Your task to perform on an android device: turn pop-ups on in chrome Image 0: 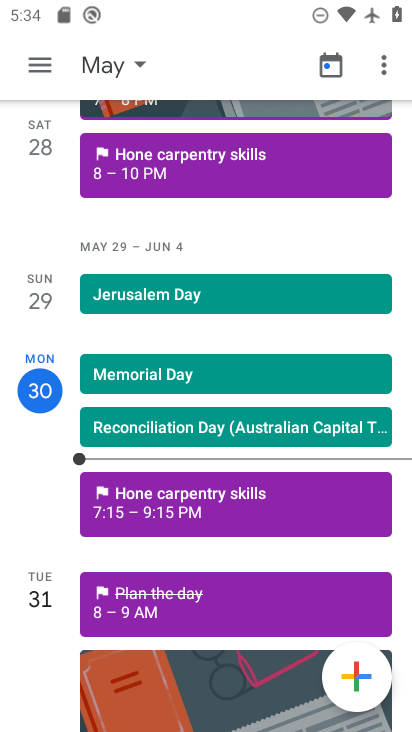
Step 0: press back button
Your task to perform on an android device: turn pop-ups on in chrome Image 1: 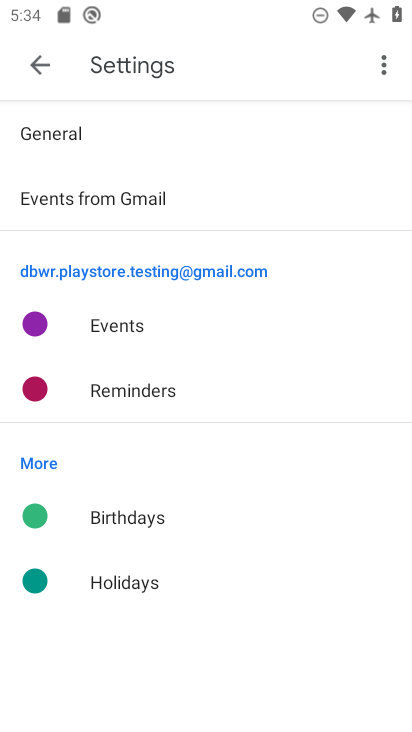
Step 1: press home button
Your task to perform on an android device: turn pop-ups on in chrome Image 2: 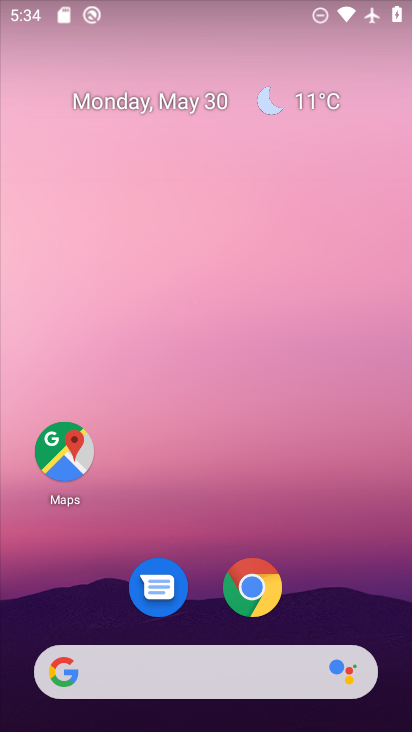
Step 2: click (250, 587)
Your task to perform on an android device: turn pop-ups on in chrome Image 3: 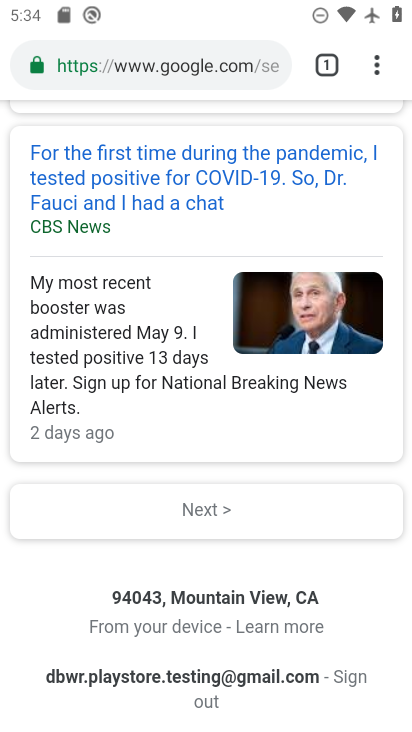
Step 3: drag from (371, 66) to (162, 631)
Your task to perform on an android device: turn pop-ups on in chrome Image 4: 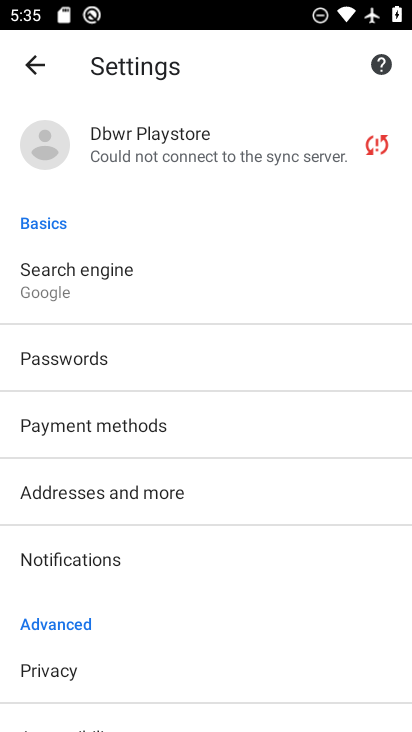
Step 4: drag from (215, 616) to (214, 194)
Your task to perform on an android device: turn pop-ups on in chrome Image 5: 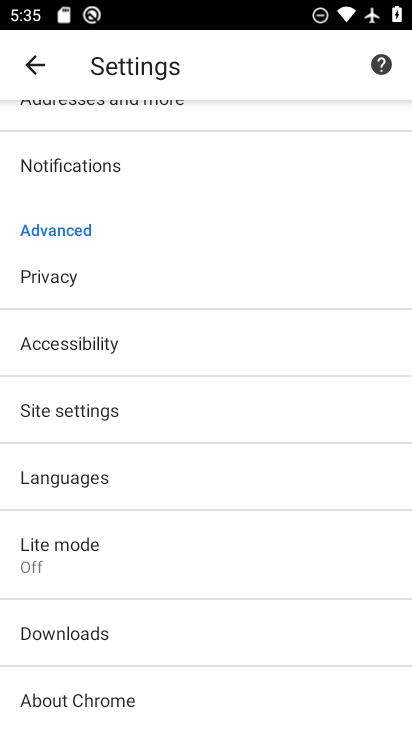
Step 5: drag from (235, 601) to (226, 187)
Your task to perform on an android device: turn pop-ups on in chrome Image 6: 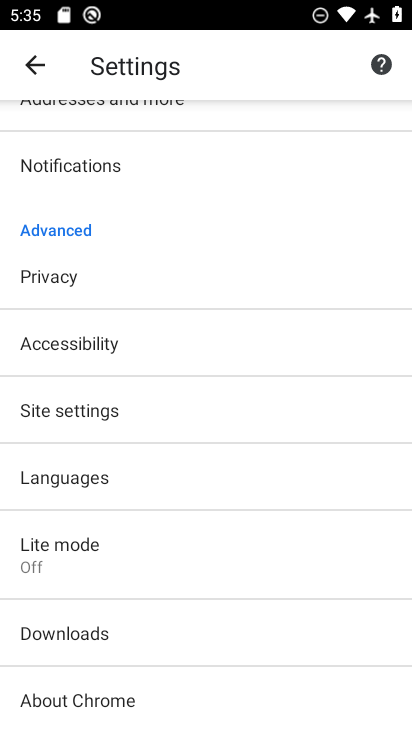
Step 6: click (128, 415)
Your task to perform on an android device: turn pop-ups on in chrome Image 7: 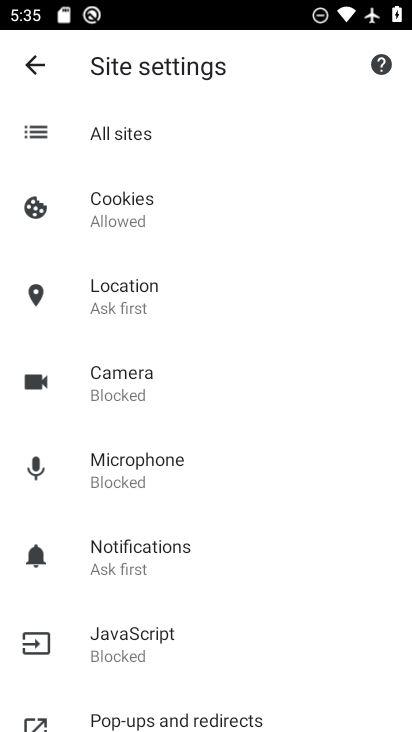
Step 7: drag from (272, 541) to (240, 162)
Your task to perform on an android device: turn pop-ups on in chrome Image 8: 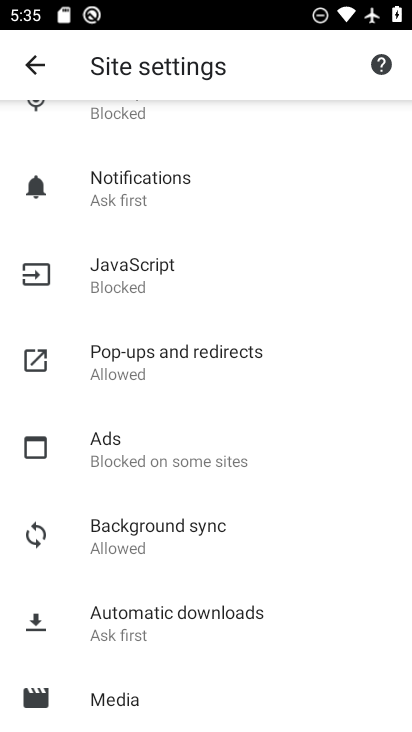
Step 8: click (146, 362)
Your task to perform on an android device: turn pop-ups on in chrome Image 9: 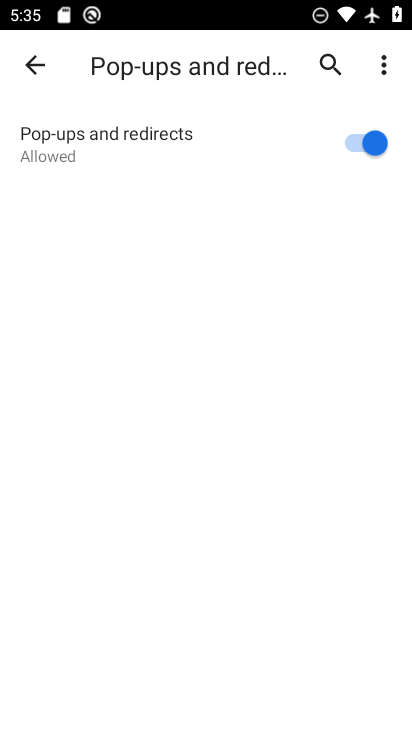
Step 9: task complete